Your task to perform on an android device: Open Wikipedia Image 0: 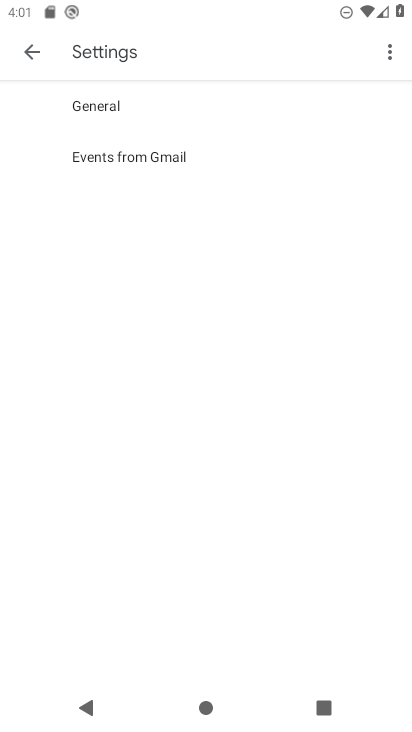
Step 0: press back button
Your task to perform on an android device: Open Wikipedia Image 1: 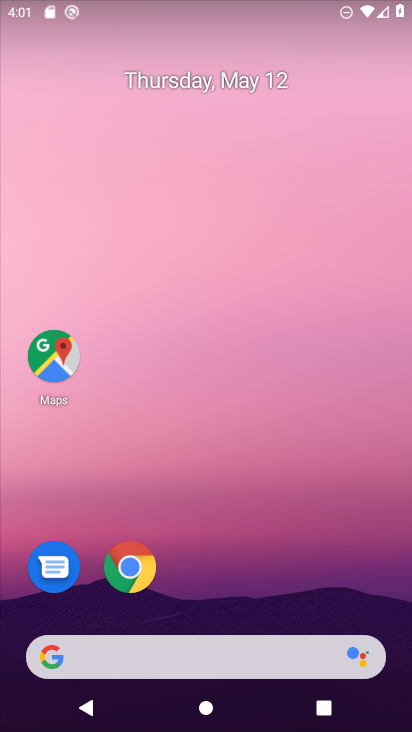
Step 1: click (132, 582)
Your task to perform on an android device: Open Wikipedia Image 2: 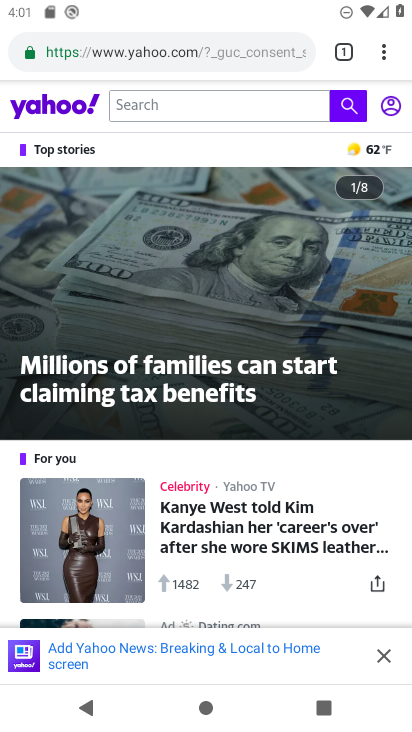
Step 2: drag from (389, 50) to (368, 100)
Your task to perform on an android device: Open Wikipedia Image 3: 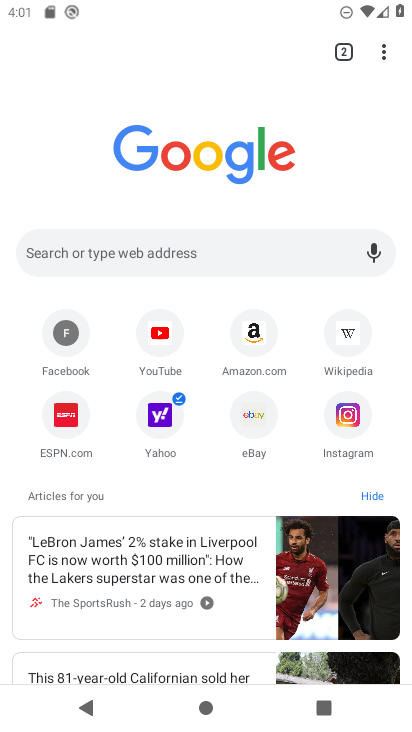
Step 3: click (363, 335)
Your task to perform on an android device: Open Wikipedia Image 4: 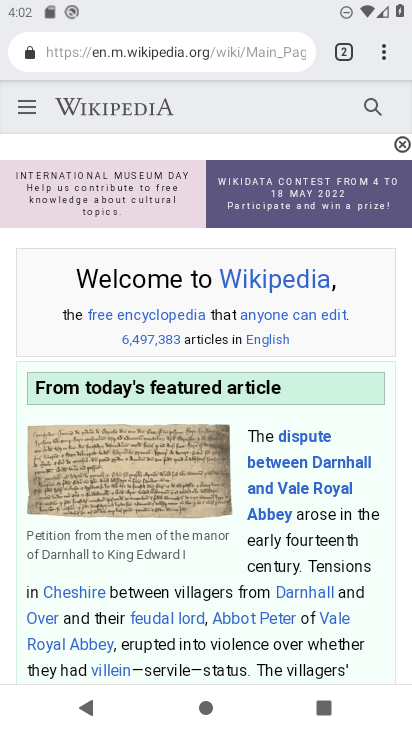
Step 4: task complete